Your task to perform on an android device: snooze an email in the gmail app Image 0: 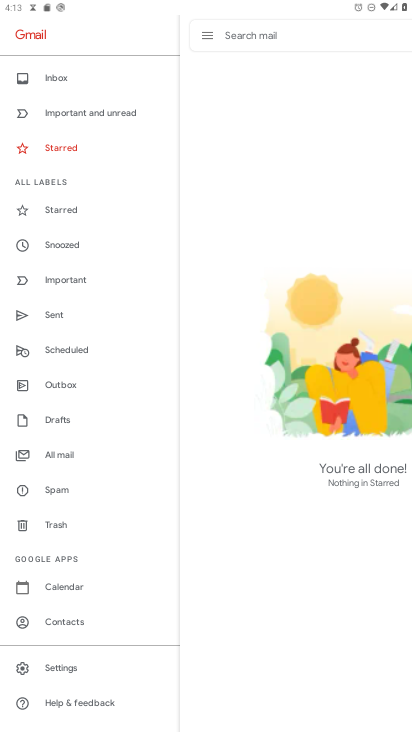
Step 0: drag from (197, 501) to (169, 102)
Your task to perform on an android device: snooze an email in the gmail app Image 1: 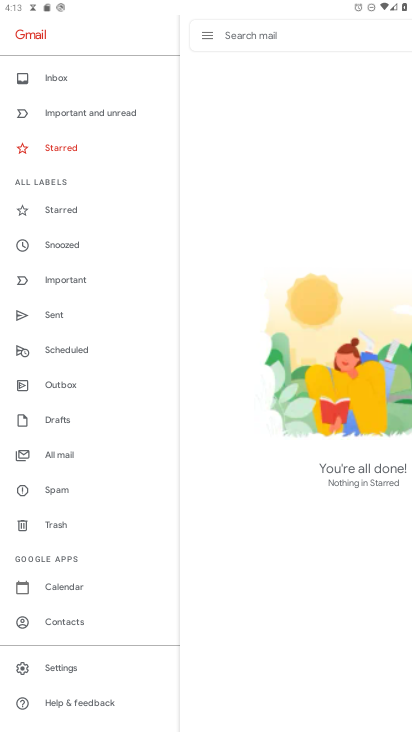
Step 1: press home button
Your task to perform on an android device: snooze an email in the gmail app Image 2: 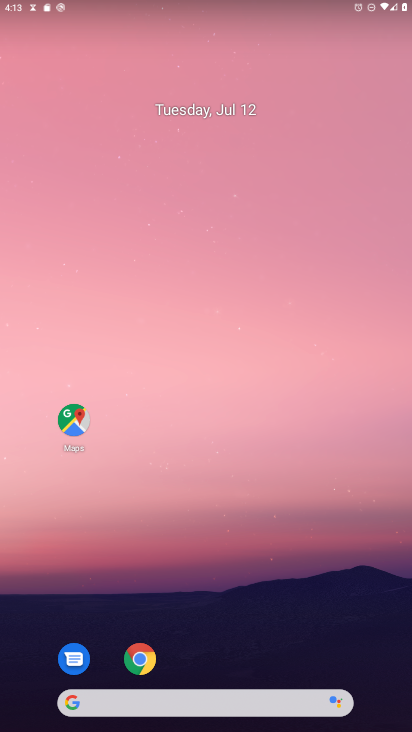
Step 2: drag from (222, 507) to (193, 238)
Your task to perform on an android device: snooze an email in the gmail app Image 3: 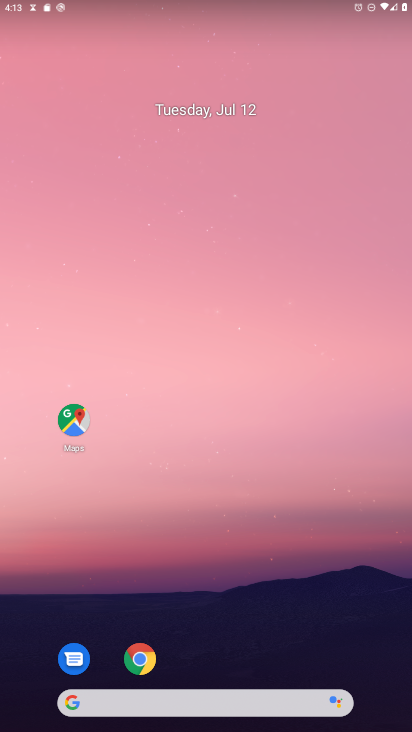
Step 3: drag from (188, 572) to (175, 188)
Your task to perform on an android device: snooze an email in the gmail app Image 4: 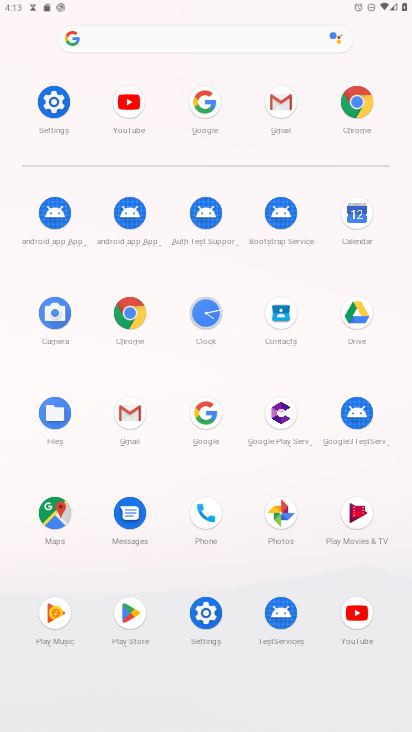
Step 4: click (284, 100)
Your task to perform on an android device: snooze an email in the gmail app Image 5: 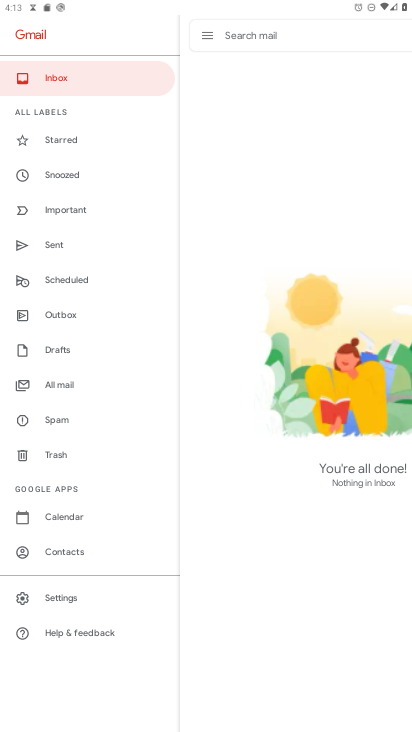
Step 5: task complete